Your task to perform on an android device: Open the map Image 0: 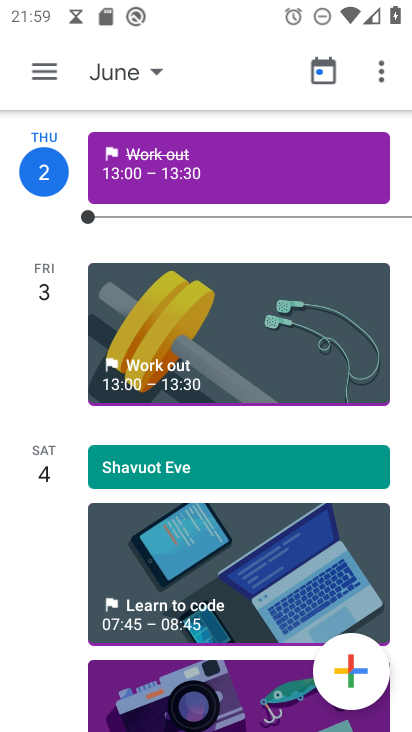
Step 0: press home button
Your task to perform on an android device: Open the map Image 1: 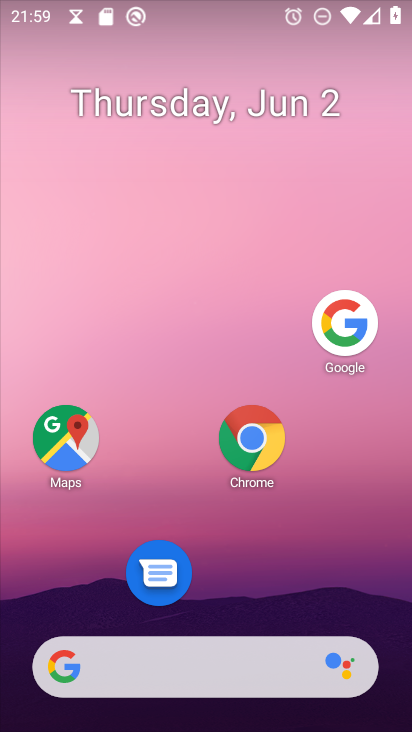
Step 1: click (65, 449)
Your task to perform on an android device: Open the map Image 2: 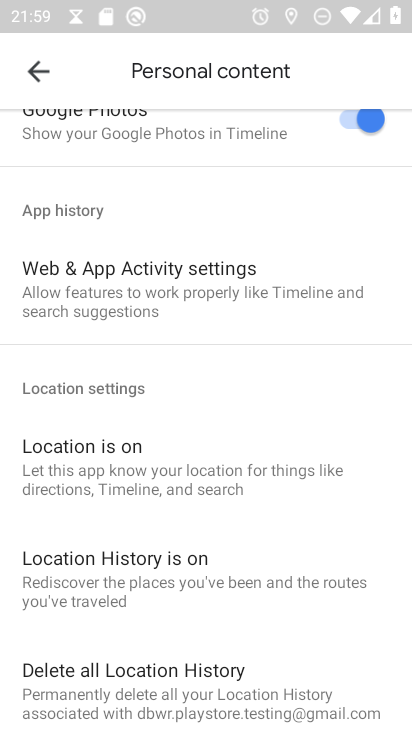
Step 2: click (39, 72)
Your task to perform on an android device: Open the map Image 3: 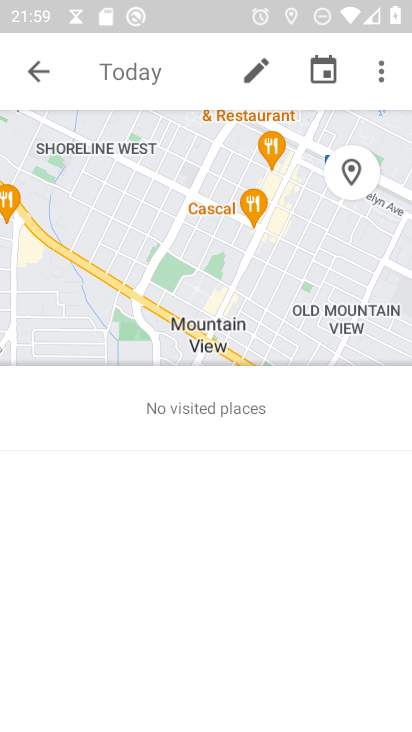
Step 3: click (35, 65)
Your task to perform on an android device: Open the map Image 4: 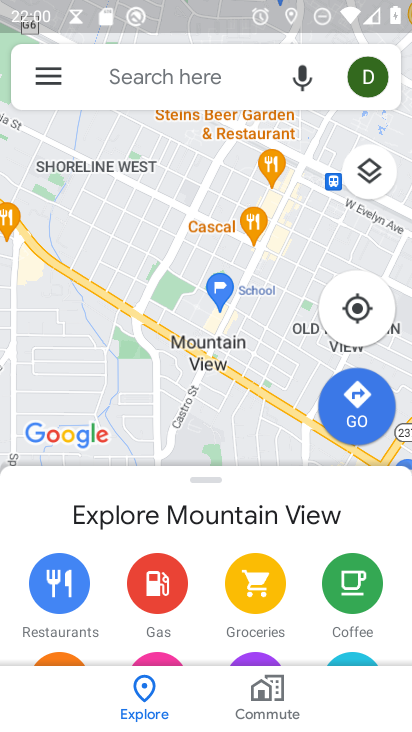
Step 4: task complete